Your task to perform on an android device: Search for pizza restaurants on Maps Image 0: 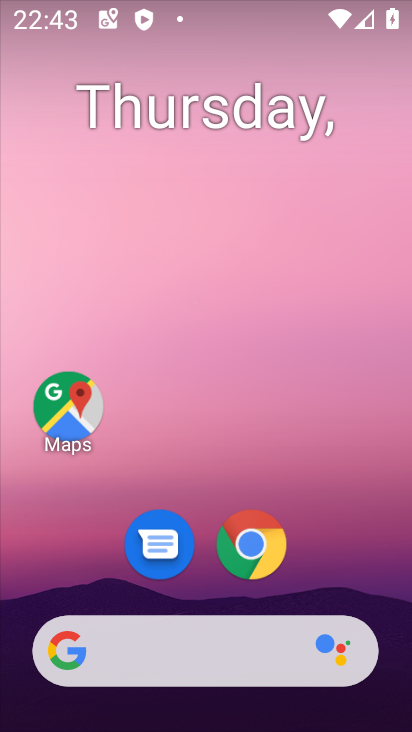
Step 0: drag from (324, 522) to (239, 45)
Your task to perform on an android device: Search for pizza restaurants on Maps Image 1: 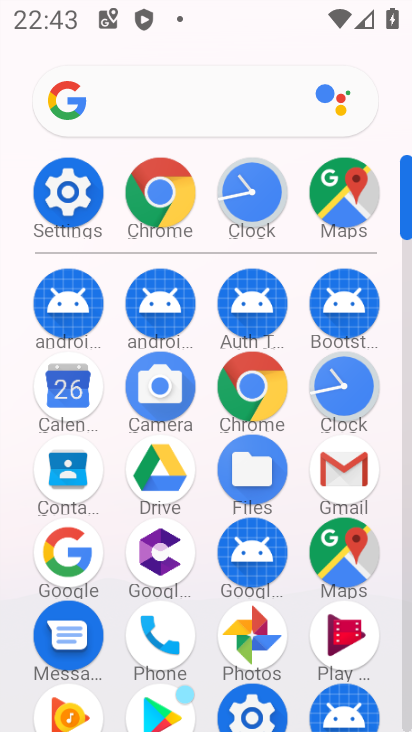
Step 1: drag from (17, 598) to (14, 211)
Your task to perform on an android device: Search for pizza restaurants on Maps Image 2: 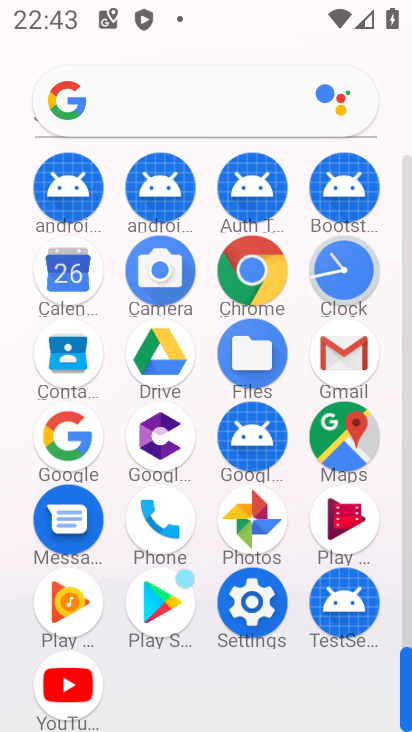
Step 2: click (345, 433)
Your task to perform on an android device: Search for pizza restaurants on Maps Image 3: 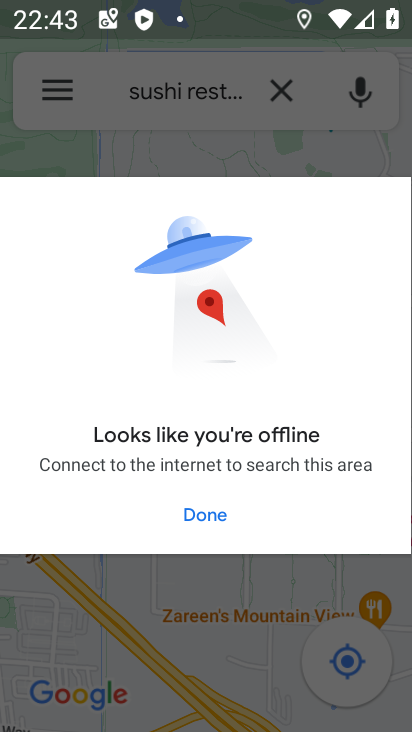
Step 3: click (191, 507)
Your task to perform on an android device: Search for pizza restaurants on Maps Image 4: 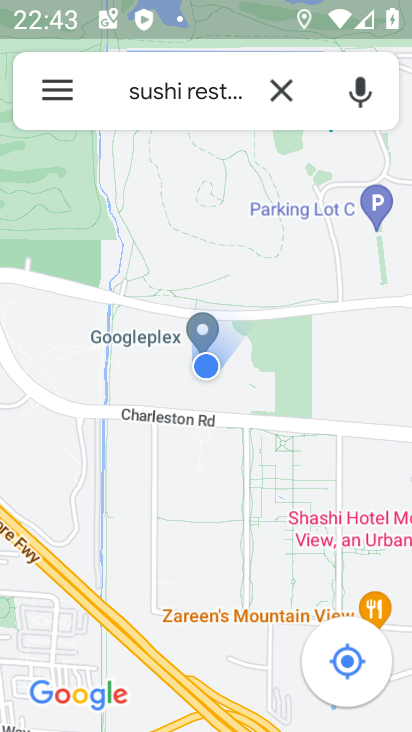
Step 4: click (290, 103)
Your task to perform on an android device: Search for pizza restaurants on Maps Image 5: 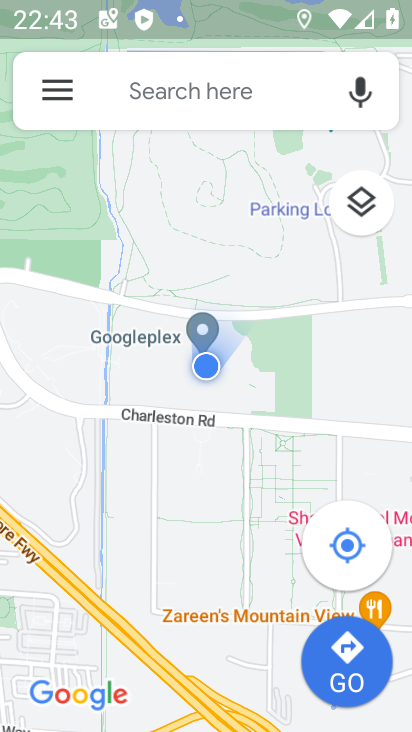
Step 5: click (123, 79)
Your task to perform on an android device: Search for pizza restaurants on Maps Image 6: 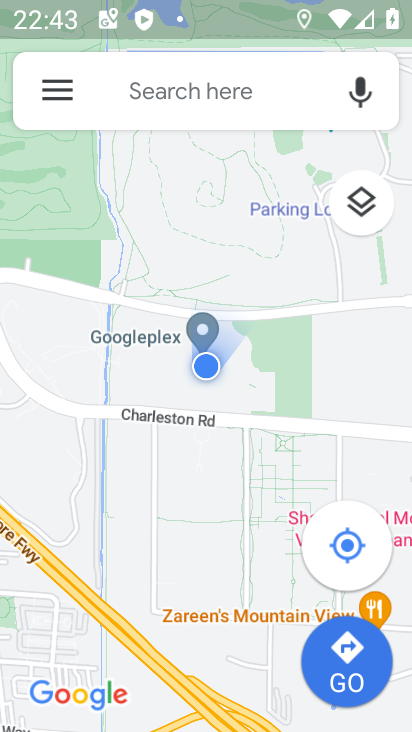
Step 6: click (268, 97)
Your task to perform on an android device: Search for pizza restaurants on Maps Image 7: 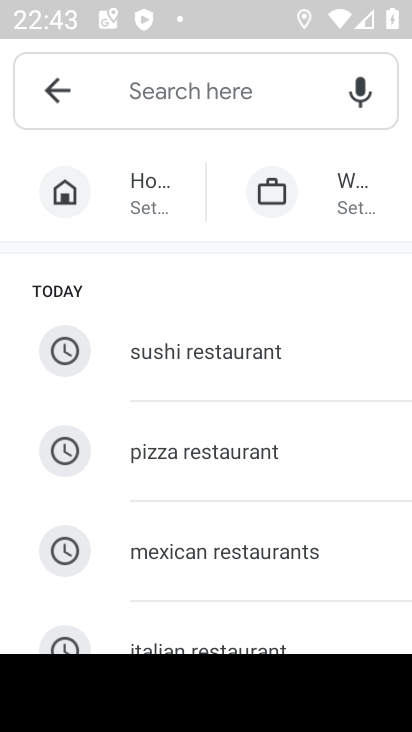
Step 7: click (223, 448)
Your task to perform on an android device: Search for pizza restaurants on Maps Image 8: 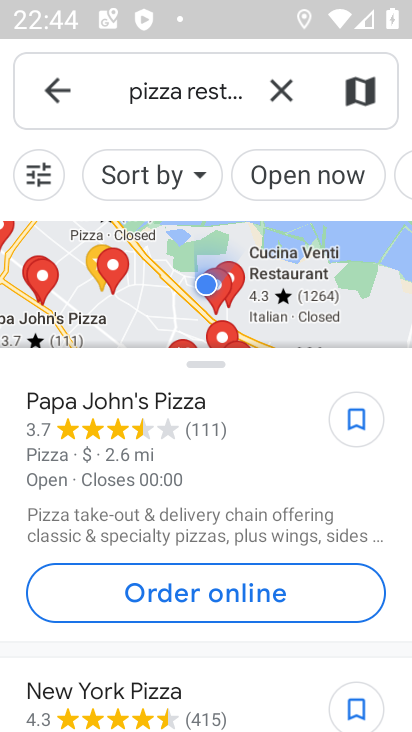
Step 8: task complete